Your task to perform on an android device: Go to Maps Image 0: 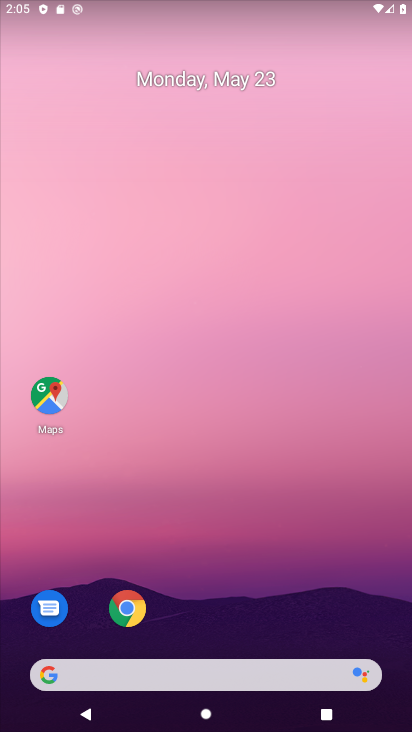
Step 0: click (50, 385)
Your task to perform on an android device: Go to Maps Image 1: 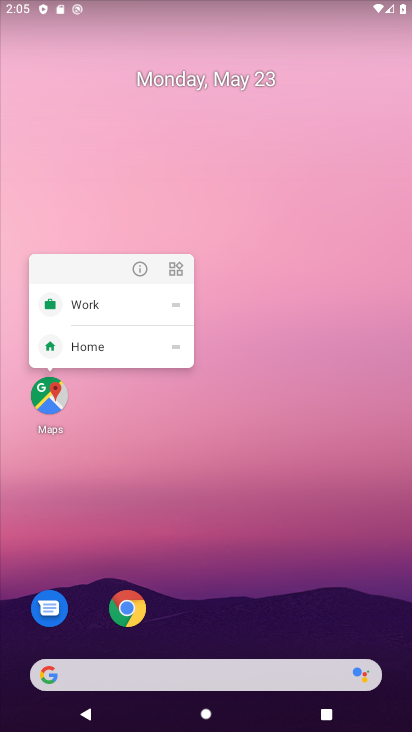
Step 1: click (55, 387)
Your task to perform on an android device: Go to Maps Image 2: 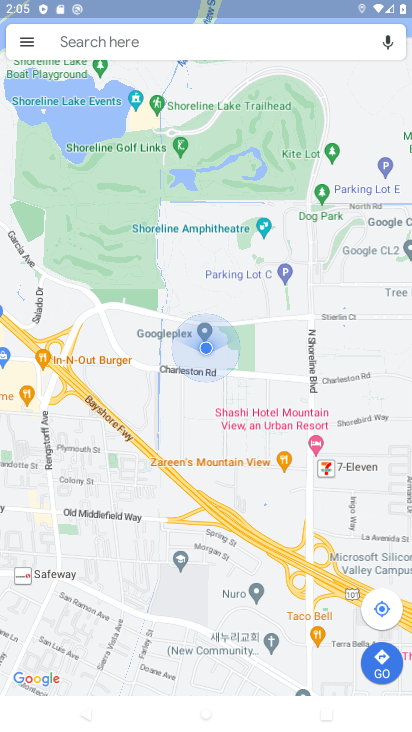
Step 2: task complete